Your task to perform on an android device: Find coffee shops on Maps Image 0: 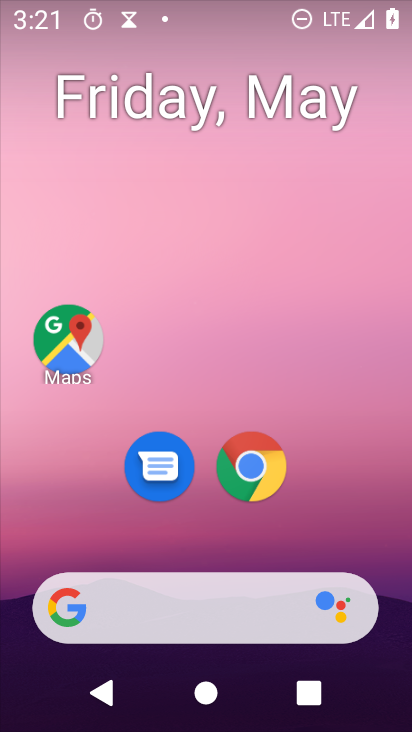
Step 0: drag from (298, 539) to (364, 120)
Your task to perform on an android device: Find coffee shops on Maps Image 1: 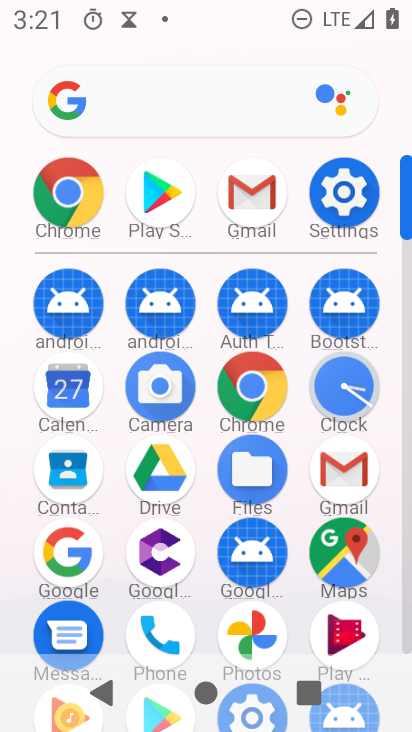
Step 1: drag from (398, 571) to (411, 229)
Your task to perform on an android device: Find coffee shops on Maps Image 2: 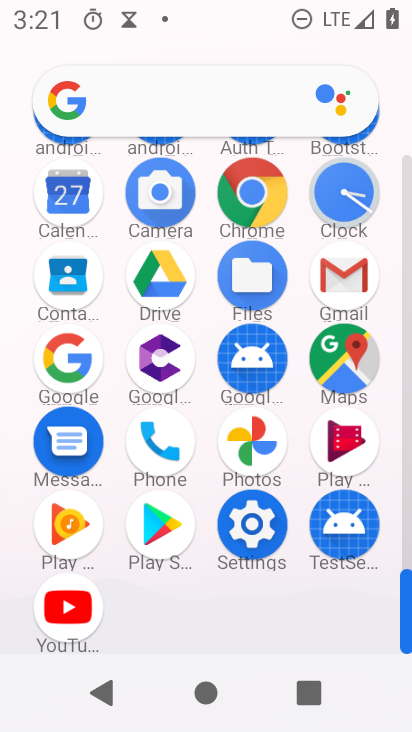
Step 2: click (328, 356)
Your task to perform on an android device: Find coffee shops on Maps Image 3: 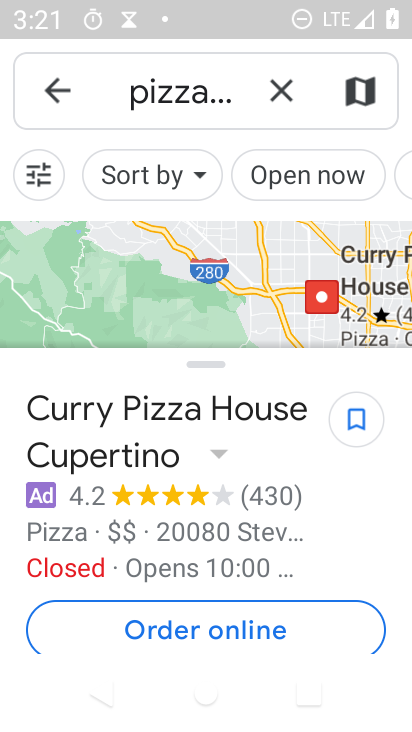
Step 3: click (274, 97)
Your task to perform on an android device: Find coffee shops on Maps Image 4: 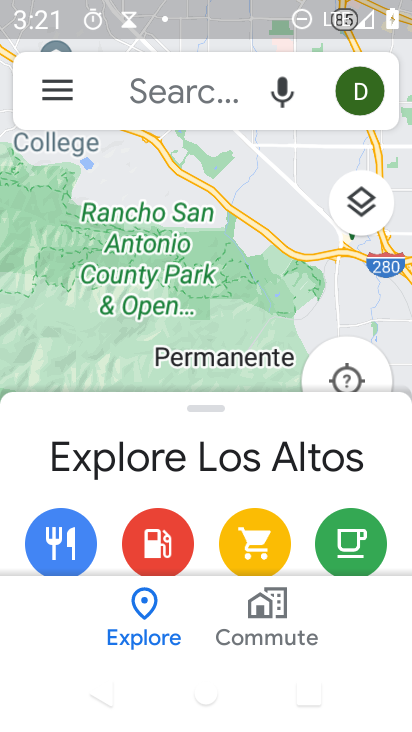
Step 4: click (192, 100)
Your task to perform on an android device: Find coffee shops on Maps Image 5: 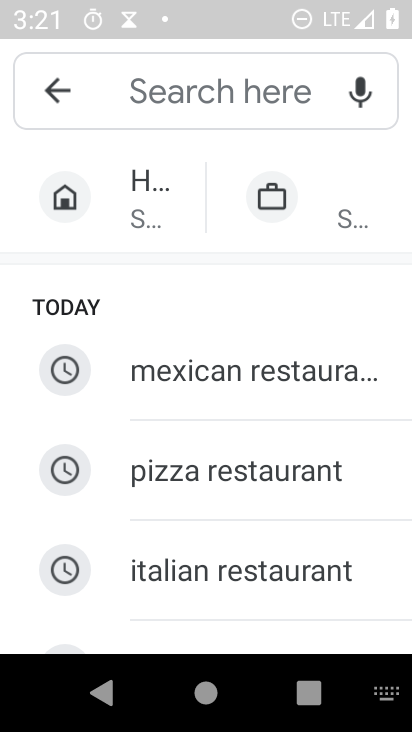
Step 5: drag from (277, 596) to (280, 264)
Your task to perform on an android device: Find coffee shops on Maps Image 6: 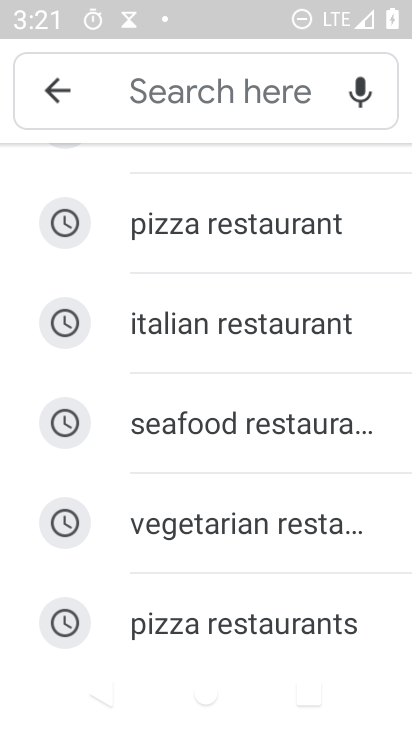
Step 6: drag from (306, 566) to (282, 214)
Your task to perform on an android device: Find coffee shops on Maps Image 7: 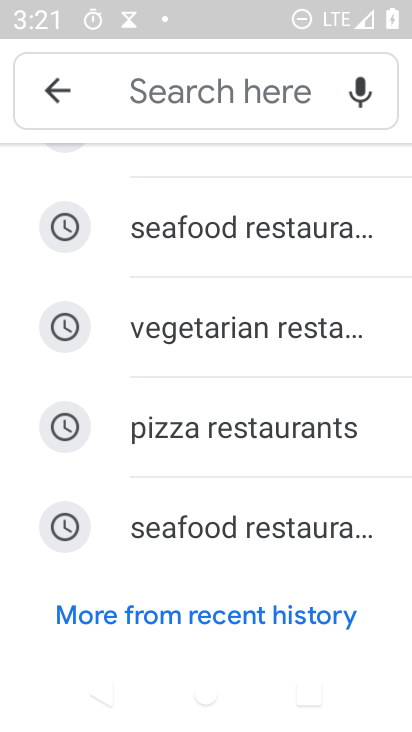
Step 7: drag from (206, 147) to (188, 731)
Your task to perform on an android device: Find coffee shops on Maps Image 8: 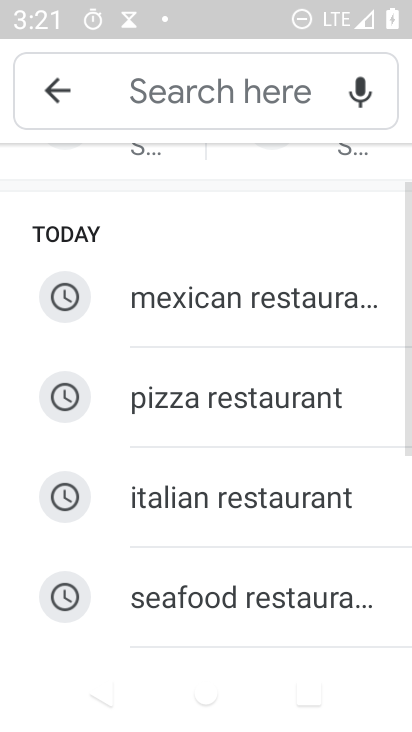
Step 8: drag from (266, 223) to (264, 673)
Your task to perform on an android device: Find coffee shops on Maps Image 9: 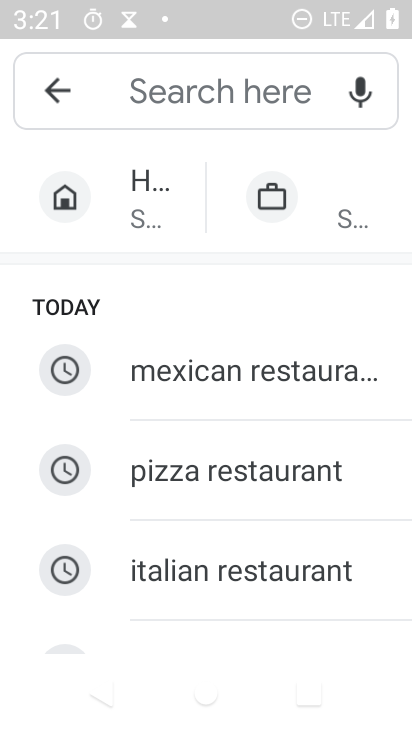
Step 9: drag from (203, 245) to (219, 616)
Your task to perform on an android device: Find coffee shops on Maps Image 10: 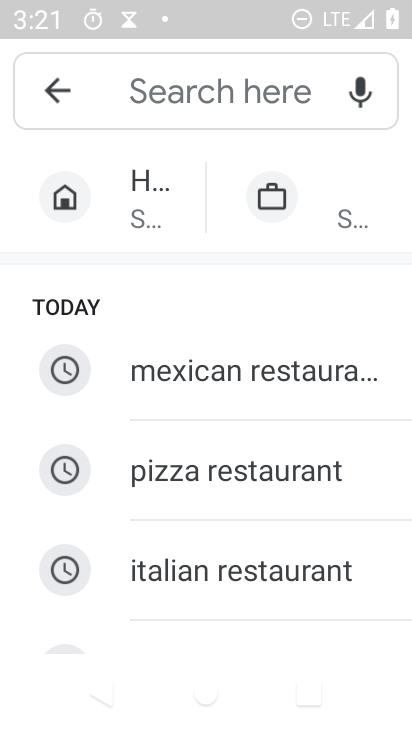
Step 10: click (208, 98)
Your task to perform on an android device: Find coffee shops on Maps Image 11: 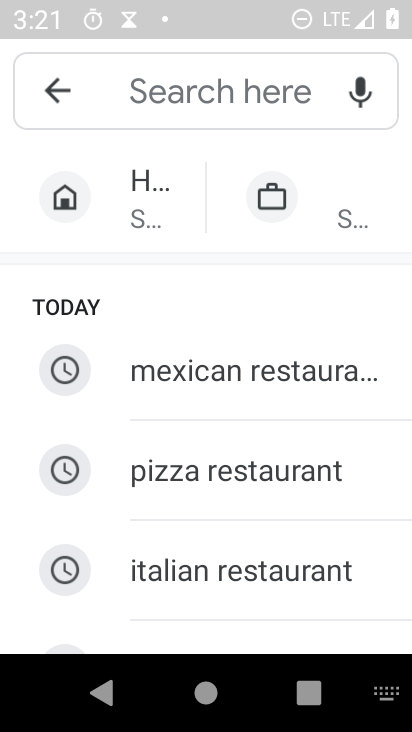
Step 11: type "coffee"
Your task to perform on an android device: Find coffee shops on Maps Image 12: 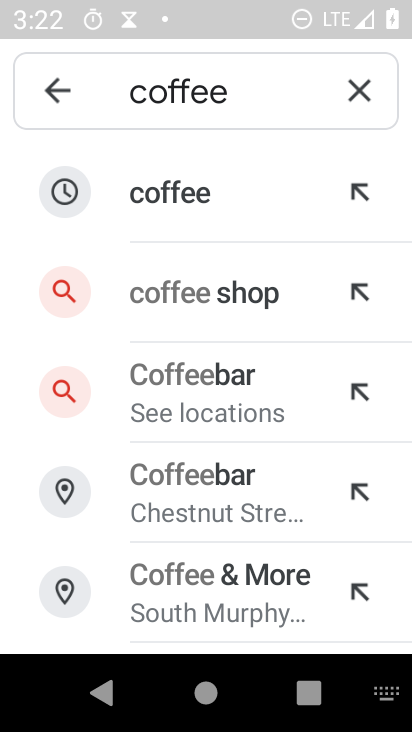
Step 12: click (188, 209)
Your task to perform on an android device: Find coffee shops on Maps Image 13: 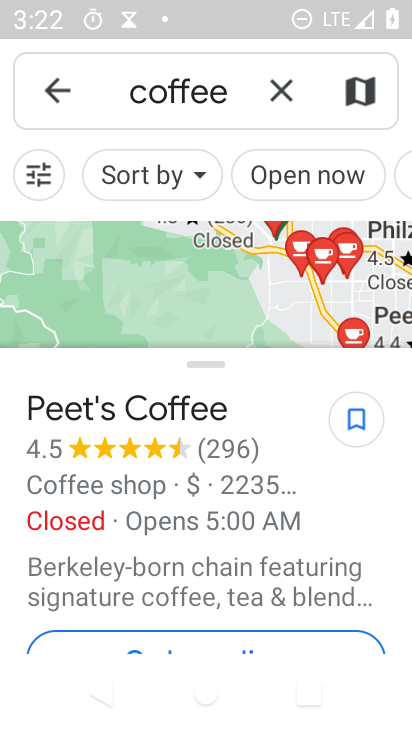
Step 13: task complete